Your task to perform on an android device: Is it going to rain tomorrow? Image 0: 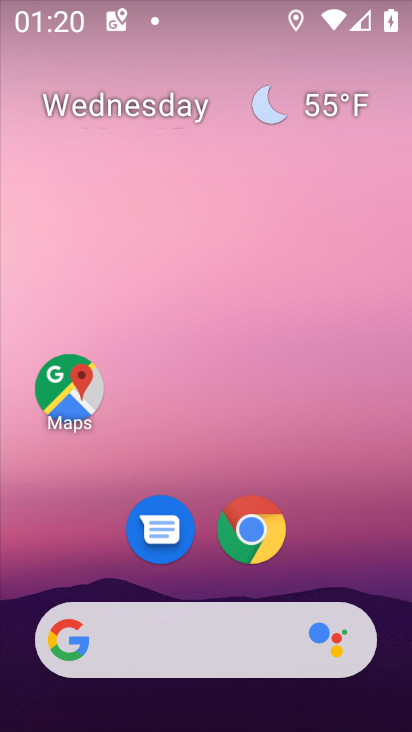
Step 0: click (260, 109)
Your task to perform on an android device: Is it going to rain tomorrow? Image 1: 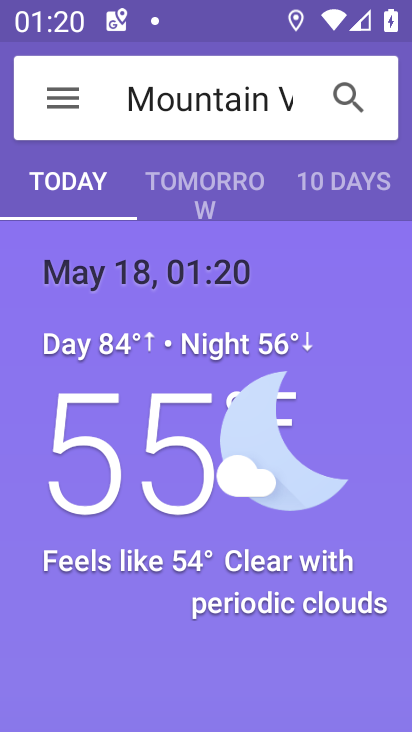
Step 1: click (196, 178)
Your task to perform on an android device: Is it going to rain tomorrow? Image 2: 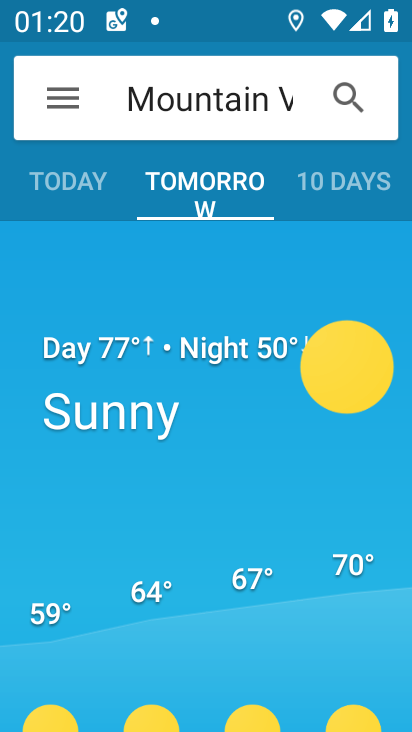
Step 2: task complete